Your task to perform on an android device: check google app version Image 0: 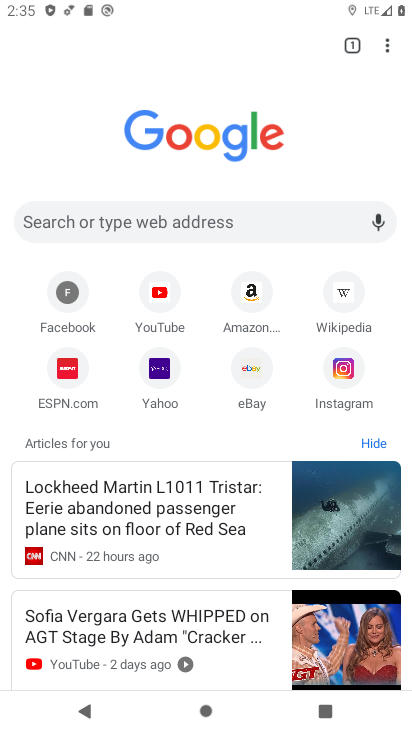
Step 0: press home button
Your task to perform on an android device: check google app version Image 1: 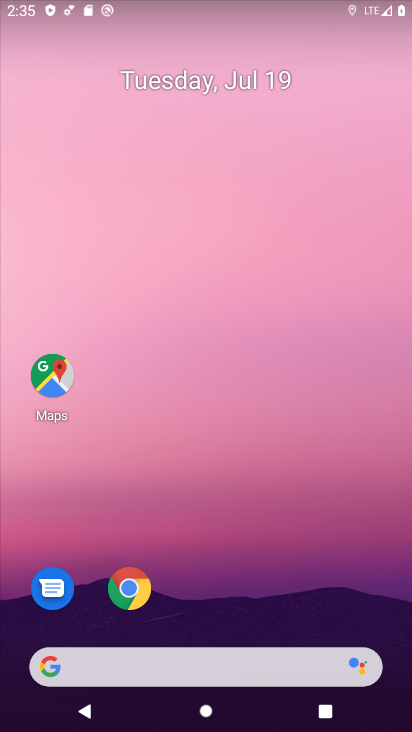
Step 1: drag from (204, 589) to (236, 48)
Your task to perform on an android device: check google app version Image 2: 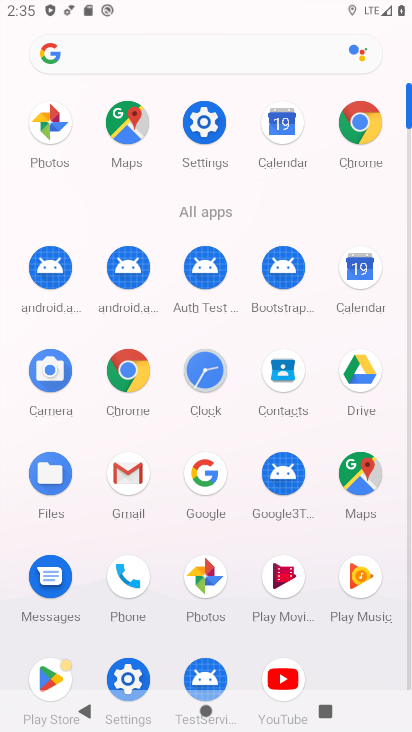
Step 2: click (210, 127)
Your task to perform on an android device: check google app version Image 3: 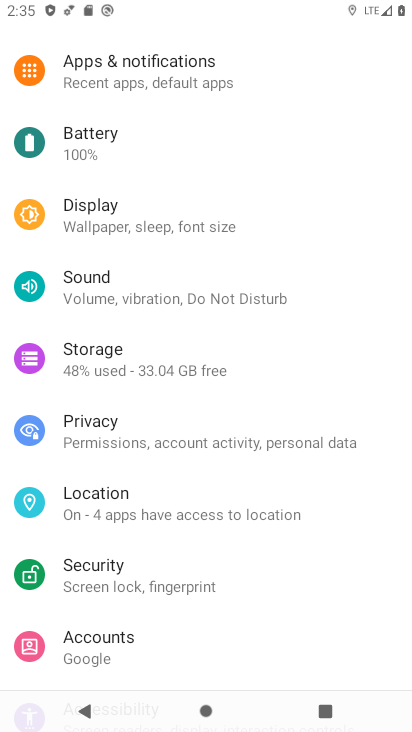
Step 3: drag from (195, 643) to (252, 20)
Your task to perform on an android device: check google app version Image 4: 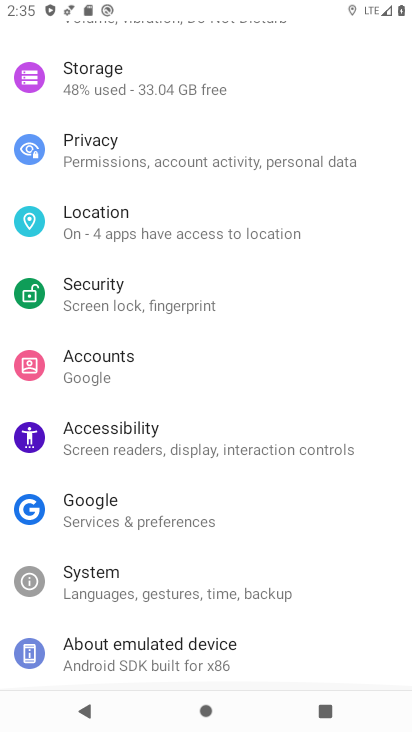
Step 4: click (168, 664)
Your task to perform on an android device: check google app version Image 5: 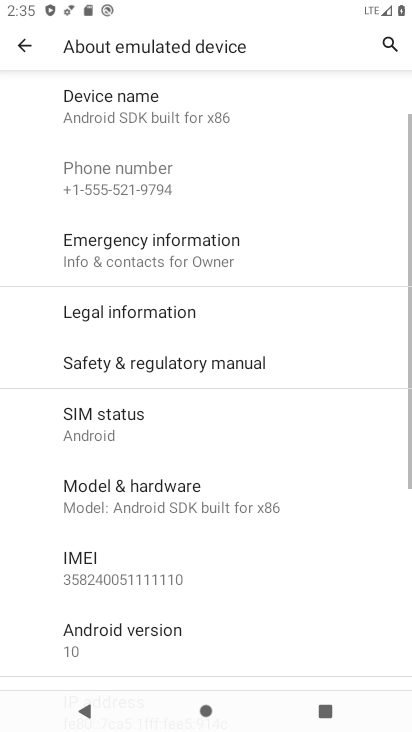
Step 5: click (125, 642)
Your task to perform on an android device: check google app version Image 6: 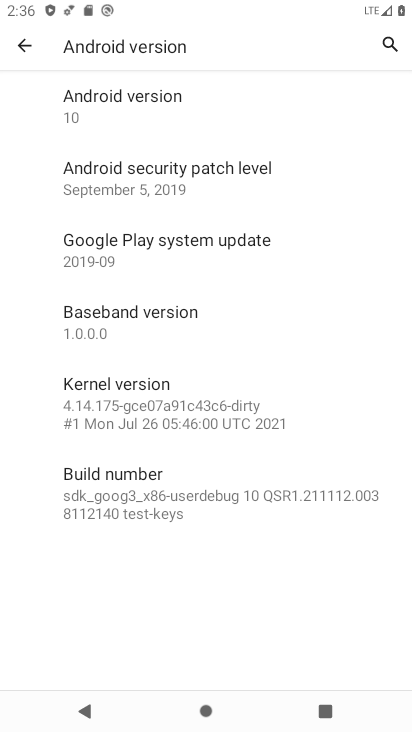
Step 6: task complete